Your task to perform on an android device: Turn off the flashlight Image 0: 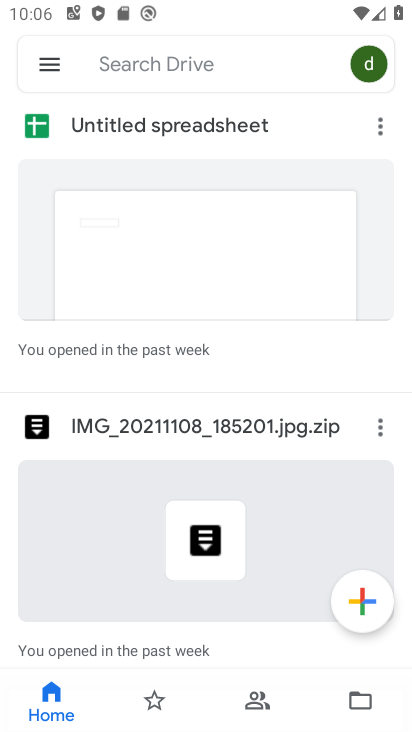
Step 0: press home button
Your task to perform on an android device: Turn off the flashlight Image 1: 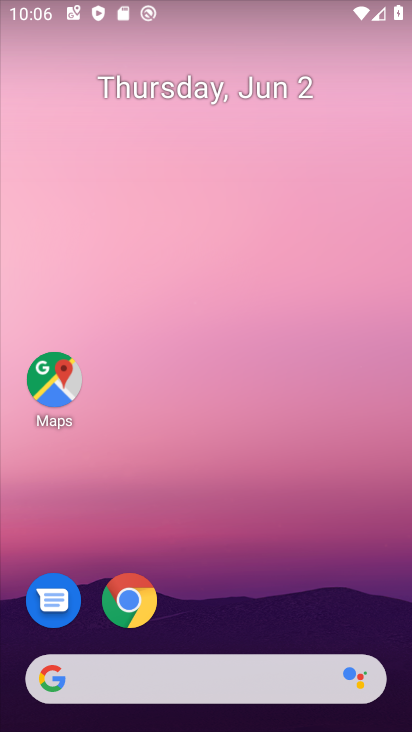
Step 1: drag from (175, 18) to (202, 523)
Your task to perform on an android device: Turn off the flashlight Image 2: 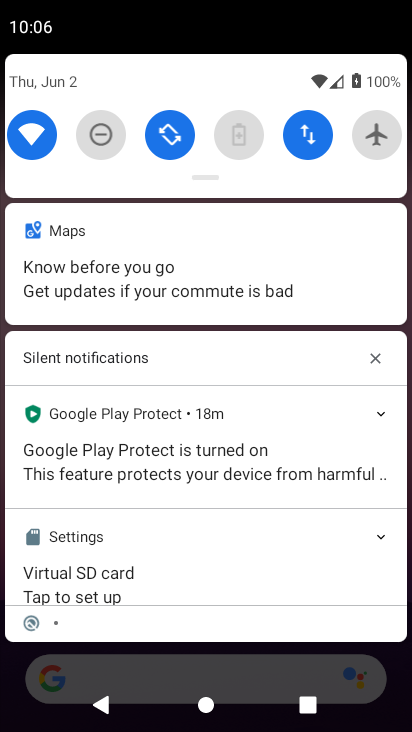
Step 2: drag from (201, 176) to (213, 600)
Your task to perform on an android device: Turn off the flashlight Image 3: 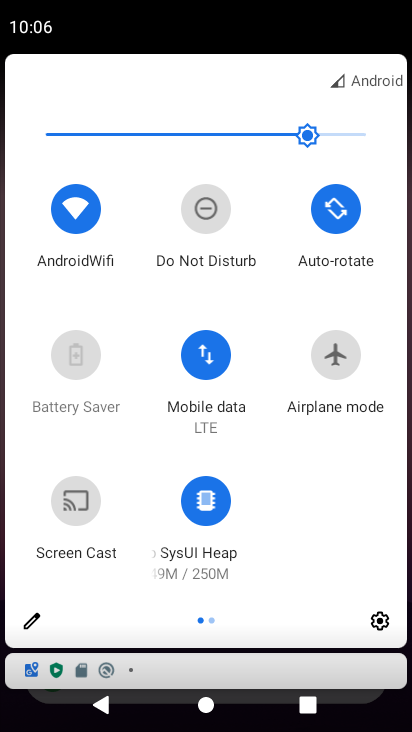
Step 3: click (25, 619)
Your task to perform on an android device: Turn off the flashlight Image 4: 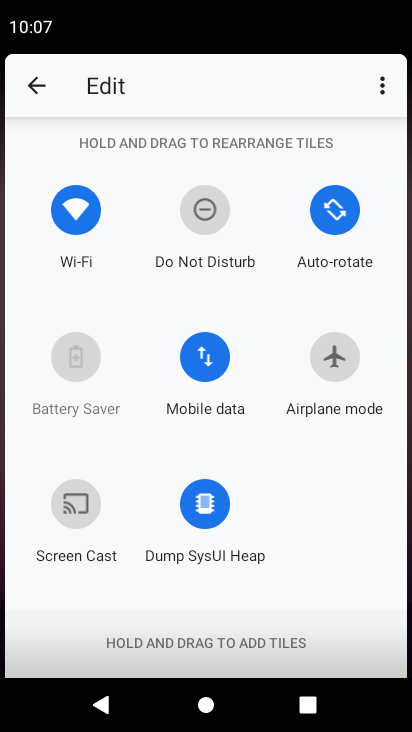
Step 4: task complete